Your task to perform on an android device: Search for vegetarian restaurants on Maps Image 0: 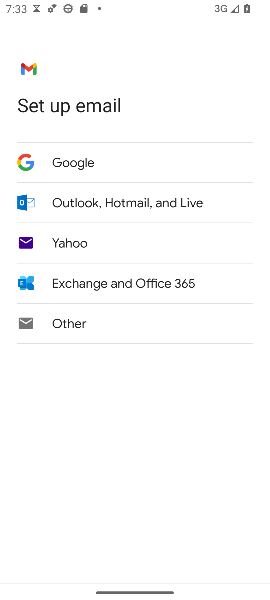
Step 0: press home button
Your task to perform on an android device: Search for vegetarian restaurants on Maps Image 1: 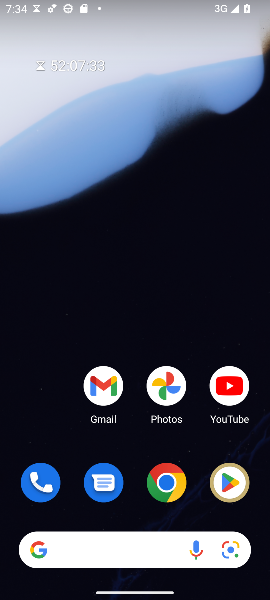
Step 1: drag from (115, 494) to (206, 104)
Your task to perform on an android device: Search for vegetarian restaurants on Maps Image 2: 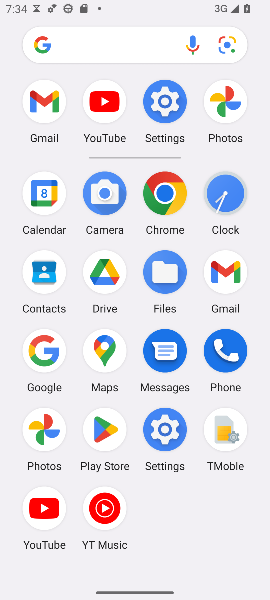
Step 2: click (109, 358)
Your task to perform on an android device: Search for vegetarian restaurants on Maps Image 3: 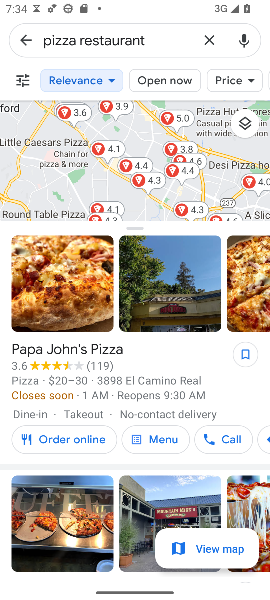
Step 3: click (207, 43)
Your task to perform on an android device: Search for vegetarian restaurants on Maps Image 4: 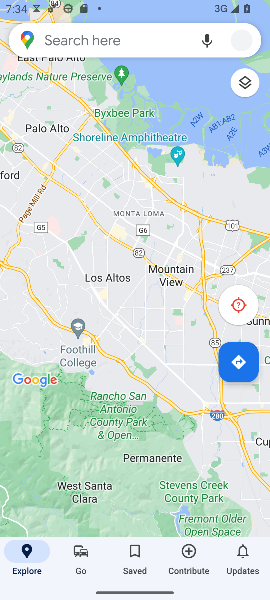
Step 4: click (158, 45)
Your task to perform on an android device: Search for vegetarian restaurants on Maps Image 5: 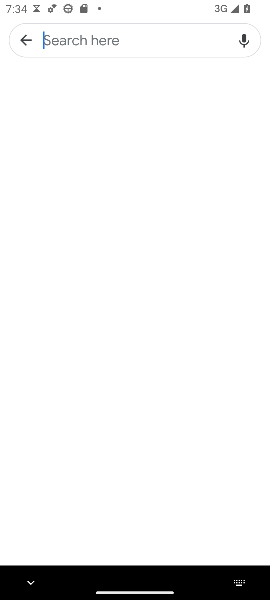
Step 5: type "vegetarian restaurants "
Your task to perform on an android device: Search for vegetarian restaurants on Maps Image 6: 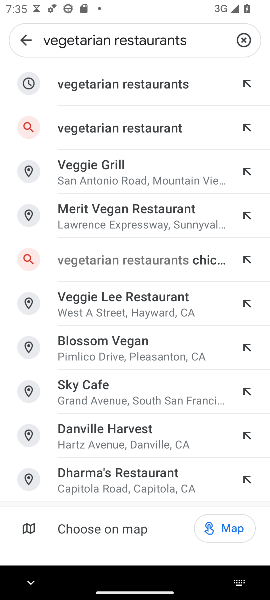
Step 6: click (127, 87)
Your task to perform on an android device: Search for vegetarian restaurants on Maps Image 7: 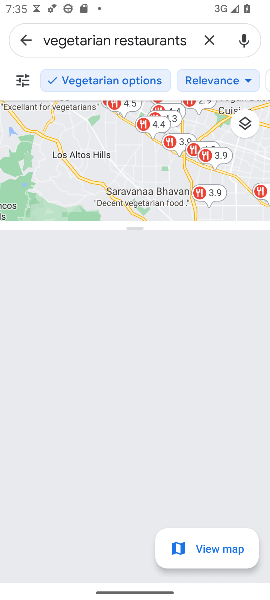
Step 7: task complete